Your task to perform on an android device: Toggle the flashlight Image 0: 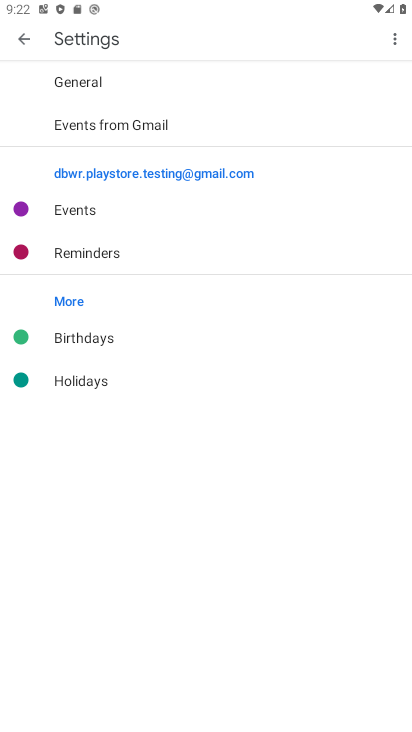
Step 0: press home button
Your task to perform on an android device: Toggle the flashlight Image 1: 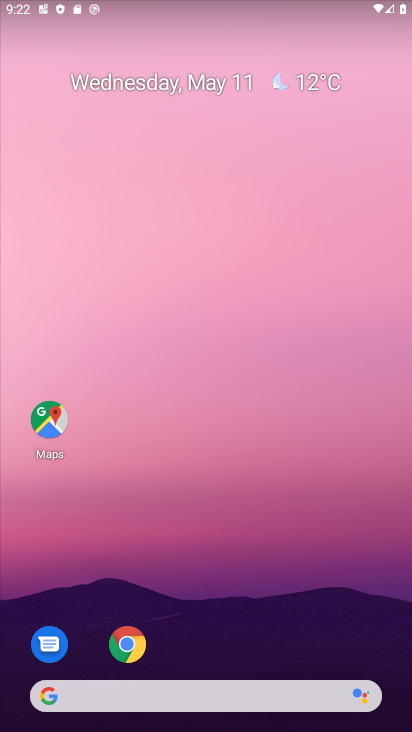
Step 1: drag from (193, 624) to (178, 216)
Your task to perform on an android device: Toggle the flashlight Image 2: 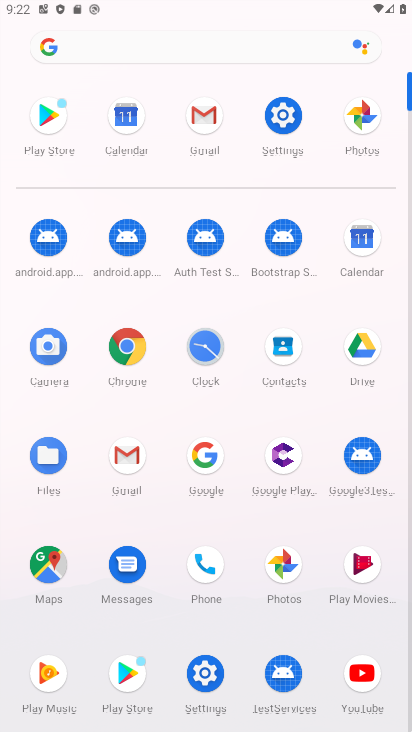
Step 2: click (287, 122)
Your task to perform on an android device: Toggle the flashlight Image 3: 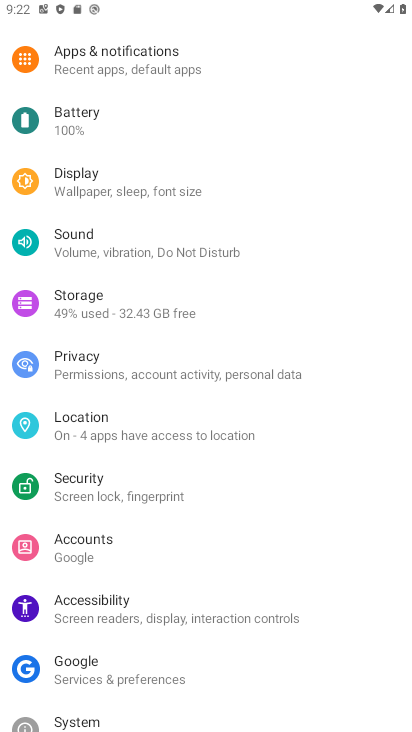
Step 3: drag from (203, 89) to (200, 427)
Your task to perform on an android device: Toggle the flashlight Image 4: 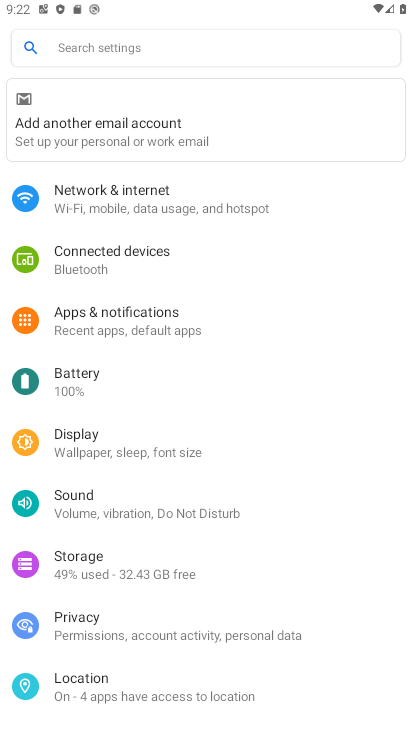
Step 4: click (170, 49)
Your task to perform on an android device: Toggle the flashlight Image 5: 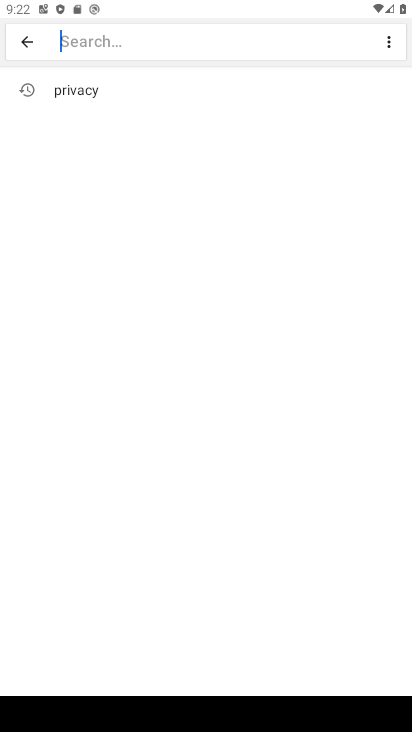
Step 5: type "flashlight"
Your task to perform on an android device: Toggle the flashlight Image 6: 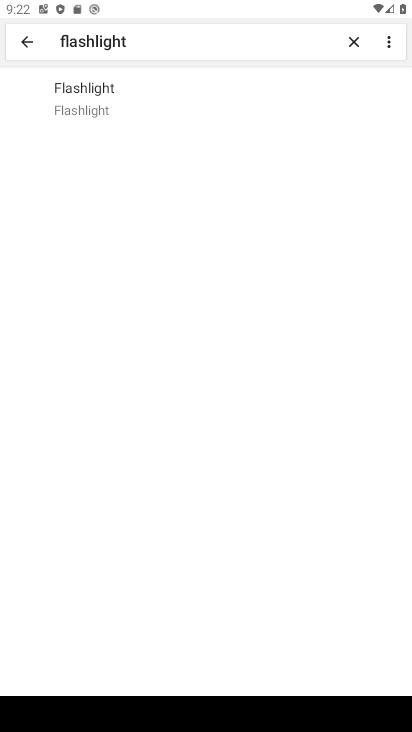
Step 6: click (132, 95)
Your task to perform on an android device: Toggle the flashlight Image 7: 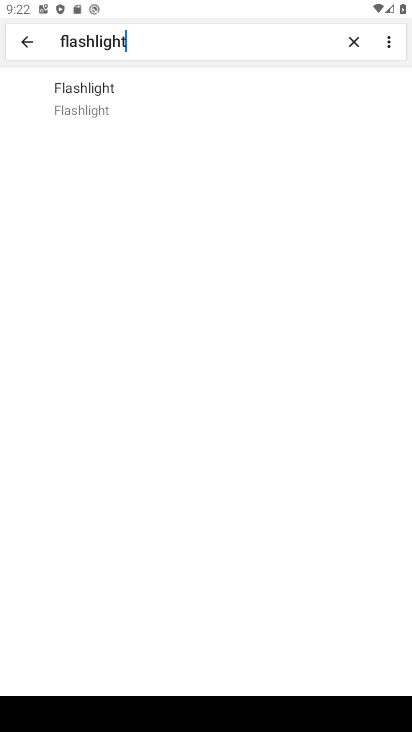
Step 7: click (132, 95)
Your task to perform on an android device: Toggle the flashlight Image 8: 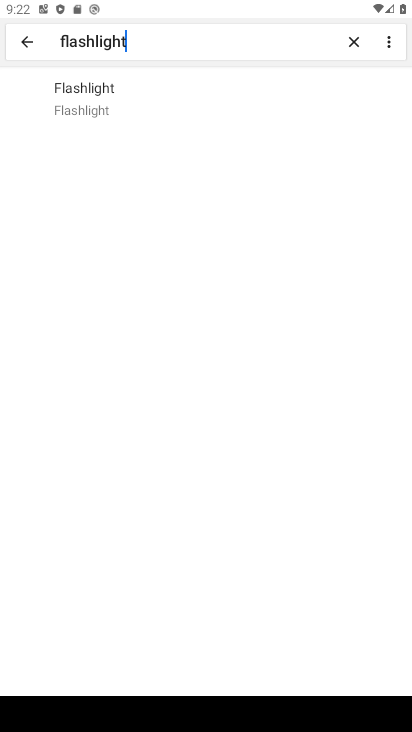
Step 8: click (132, 95)
Your task to perform on an android device: Toggle the flashlight Image 9: 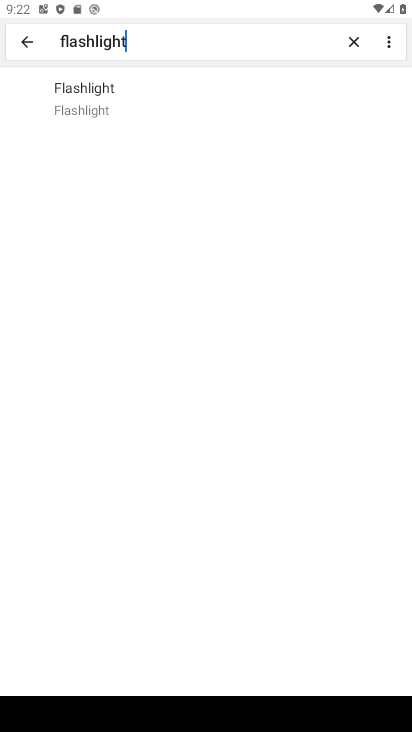
Step 9: task complete